Your task to perform on an android device: Open the Play Movies app and select the watchlist tab. Image 0: 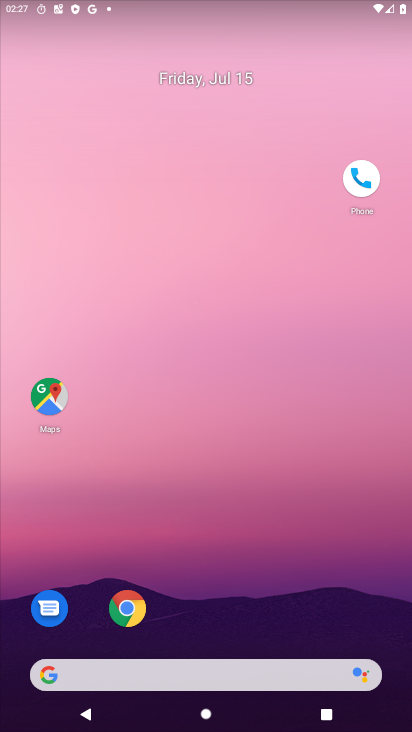
Step 0: click (231, 320)
Your task to perform on an android device: Open the Play Movies app and select the watchlist tab. Image 1: 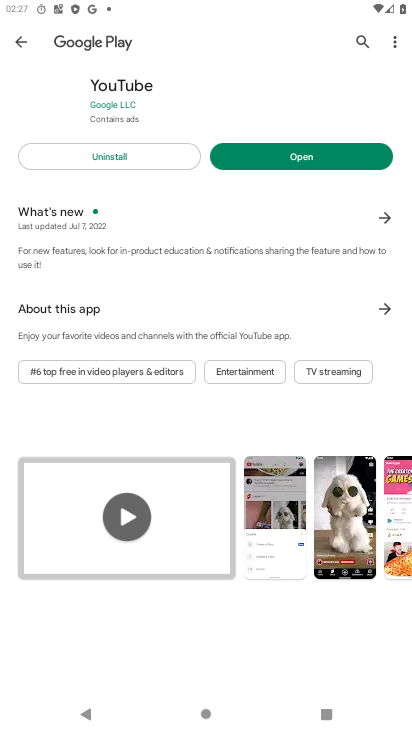
Step 1: drag from (226, 588) to (278, 109)
Your task to perform on an android device: Open the Play Movies app and select the watchlist tab. Image 2: 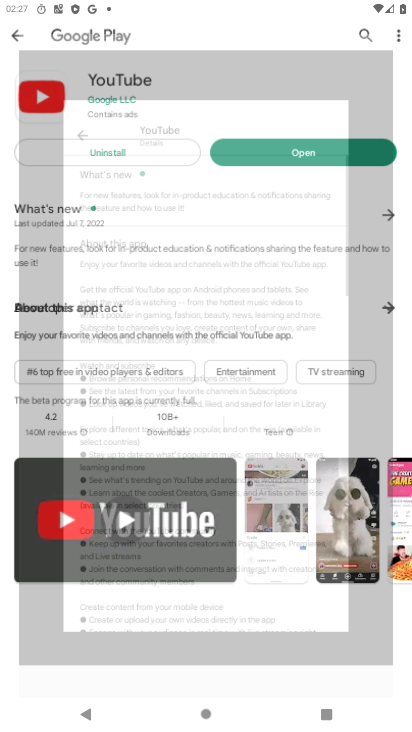
Step 2: drag from (188, 138) to (239, 617)
Your task to perform on an android device: Open the Play Movies app and select the watchlist tab. Image 3: 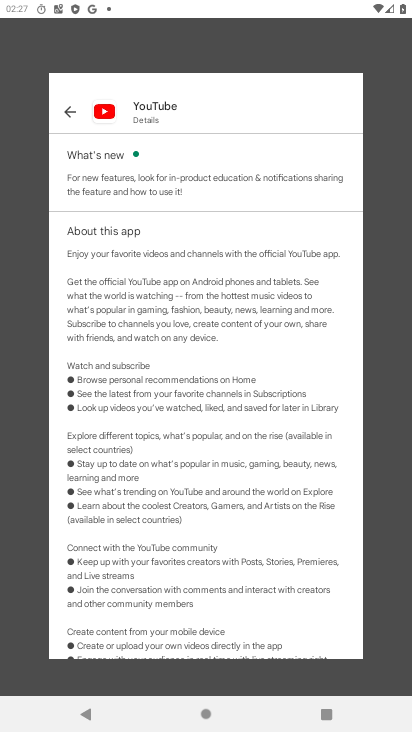
Step 3: press home button
Your task to perform on an android device: Open the Play Movies app and select the watchlist tab. Image 4: 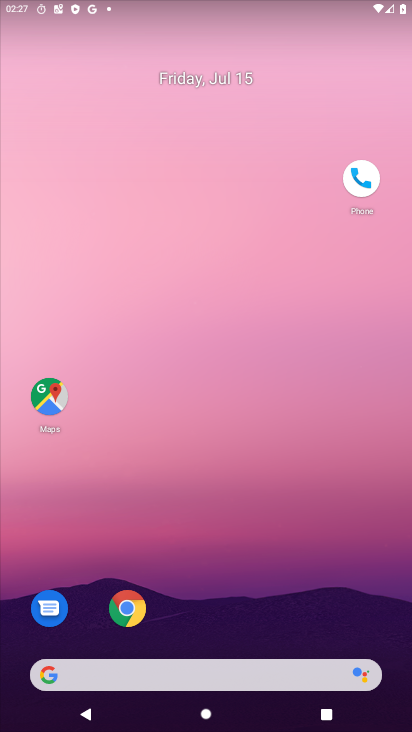
Step 4: drag from (213, 605) to (249, 322)
Your task to perform on an android device: Open the Play Movies app and select the watchlist tab. Image 5: 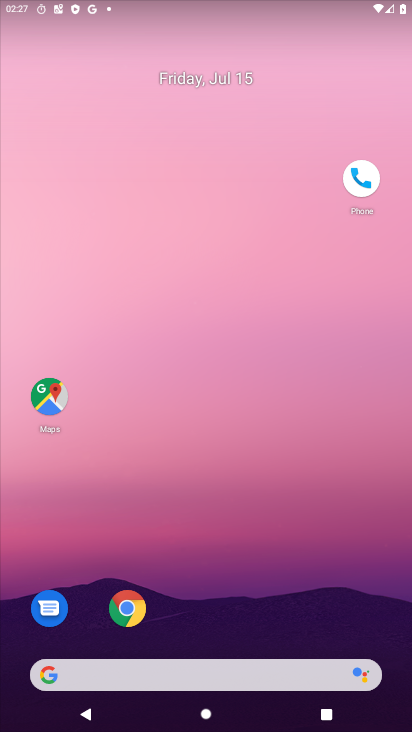
Step 5: drag from (242, 609) to (265, 247)
Your task to perform on an android device: Open the Play Movies app and select the watchlist tab. Image 6: 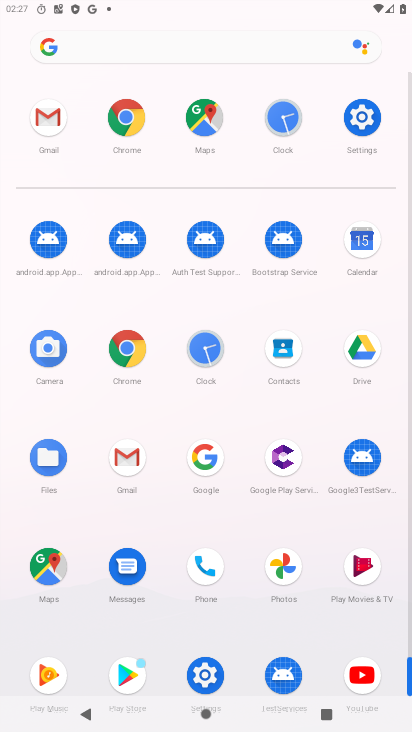
Step 6: drag from (240, 631) to (213, 257)
Your task to perform on an android device: Open the Play Movies app and select the watchlist tab. Image 7: 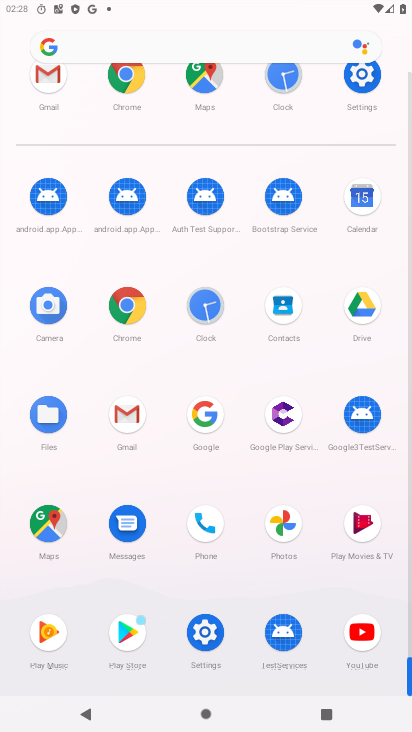
Step 7: click (364, 519)
Your task to perform on an android device: Open the Play Movies app and select the watchlist tab. Image 8: 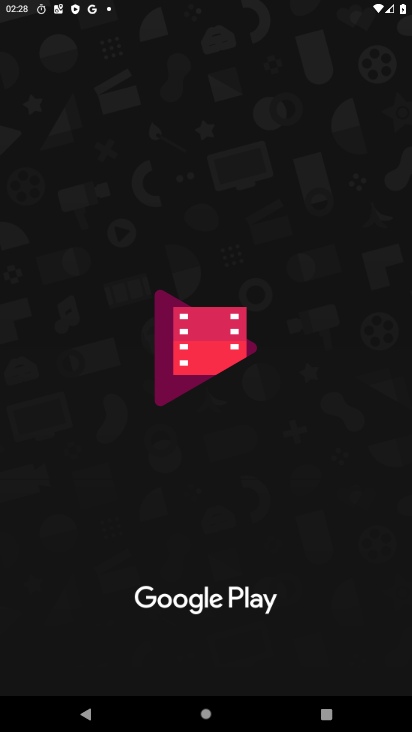
Step 8: drag from (277, 605) to (281, 453)
Your task to perform on an android device: Open the Play Movies app and select the watchlist tab. Image 9: 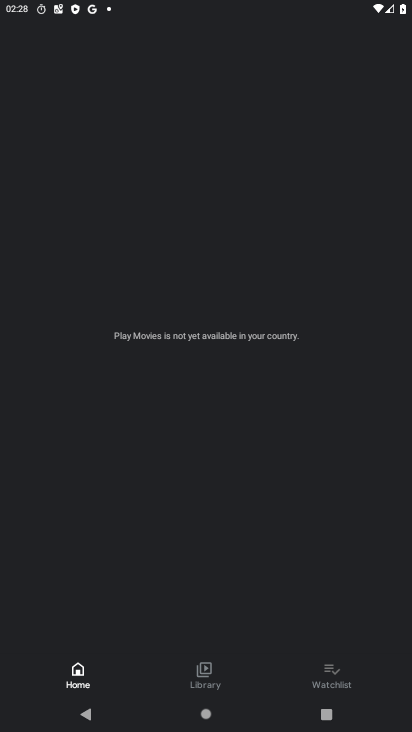
Step 9: click (355, 668)
Your task to perform on an android device: Open the Play Movies app and select the watchlist tab. Image 10: 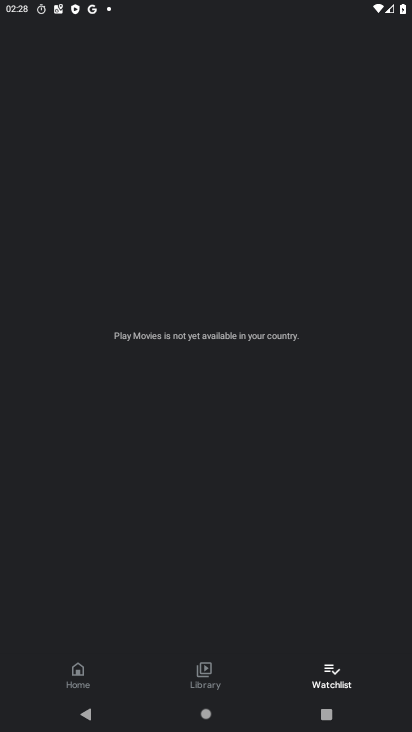
Step 10: task complete